Your task to perform on an android device: Open sound settings Image 0: 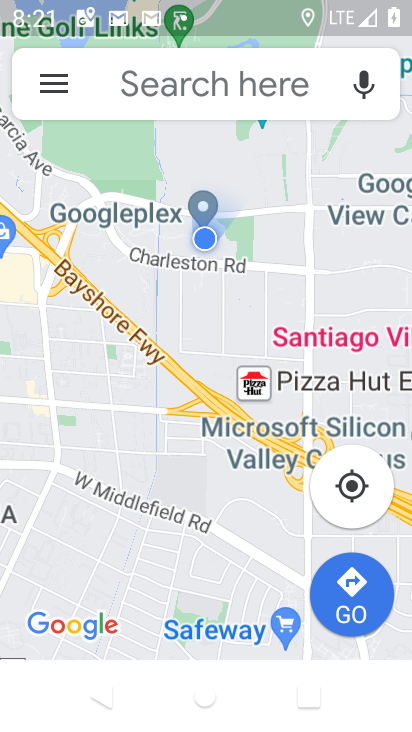
Step 0: press home button
Your task to perform on an android device: Open sound settings Image 1: 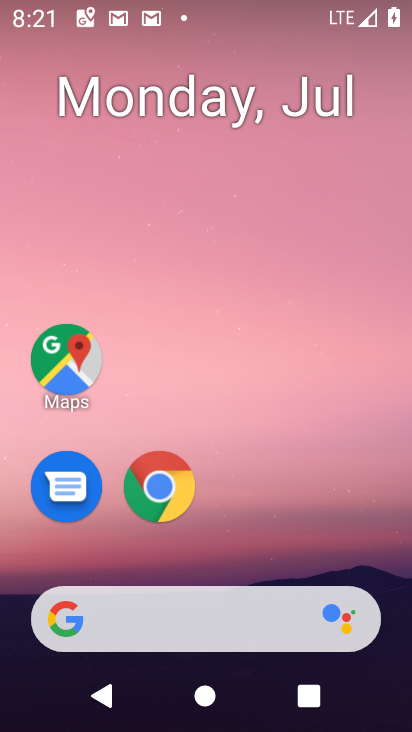
Step 1: drag from (381, 526) to (392, 121)
Your task to perform on an android device: Open sound settings Image 2: 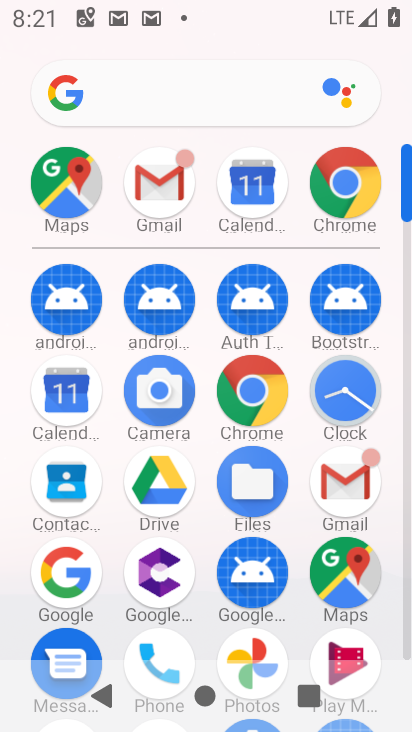
Step 2: drag from (382, 529) to (395, 208)
Your task to perform on an android device: Open sound settings Image 3: 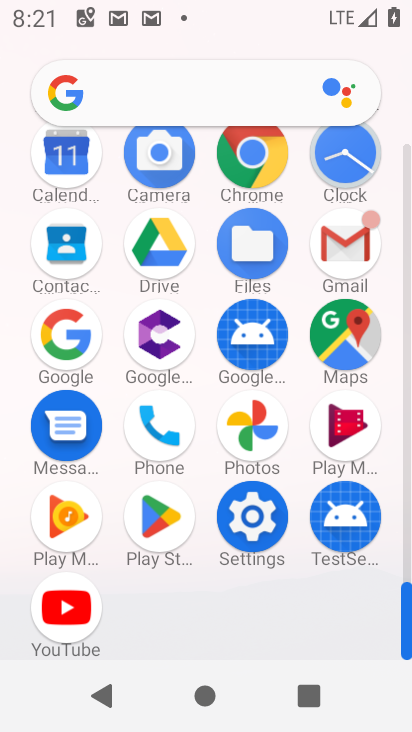
Step 3: click (255, 508)
Your task to perform on an android device: Open sound settings Image 4: 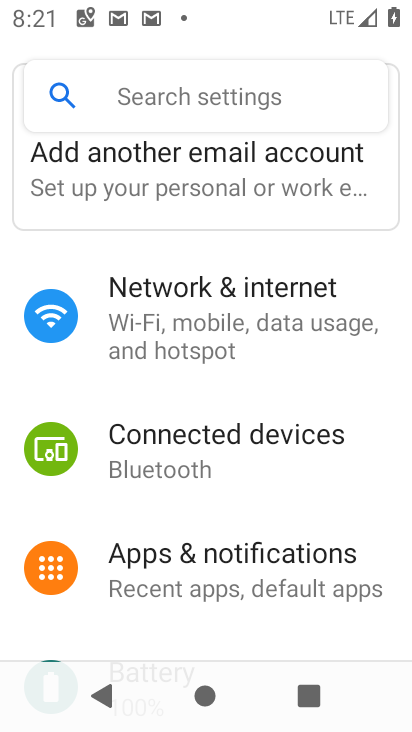
Step 4: drag from (359, 499) to (359, 377)
Your task to perform on an android device: Open sound settings Image 5: 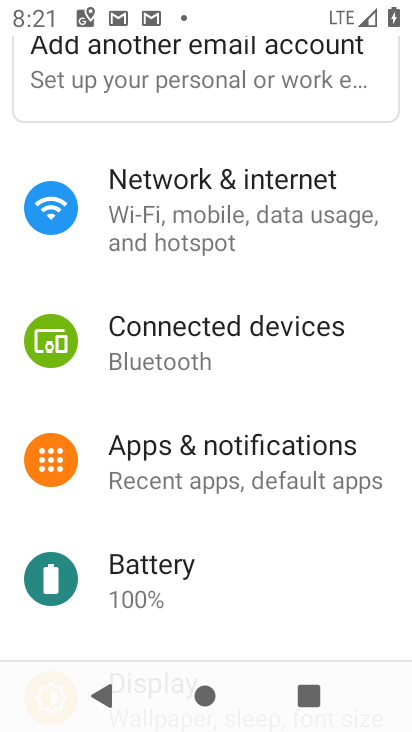
Step 5: drag from (370, 527) to (371, 401)
Your task to perform on an android device: Open sound settings Image 6: 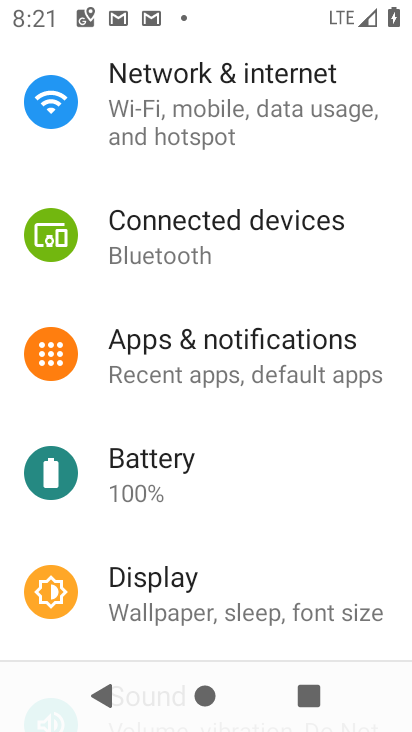
Step 6: drag from (368, 485) to (364, 361)
Your task to perform on an android device: Open sound settings Image 7: 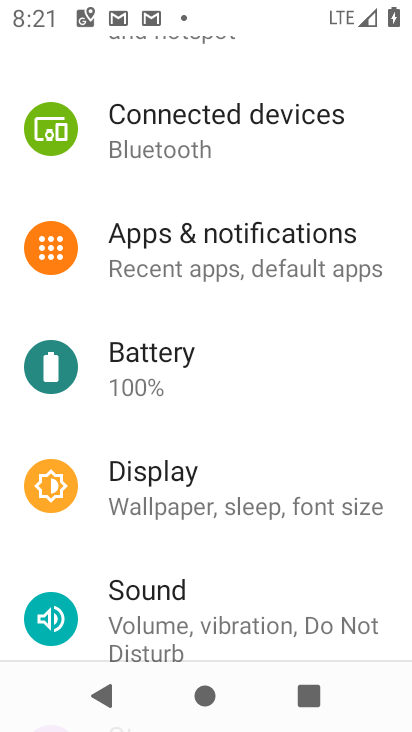
Step 7: drag from (380, 552) to (375, 435)
Your task to perform on an android device: Open sound settings Image 8: 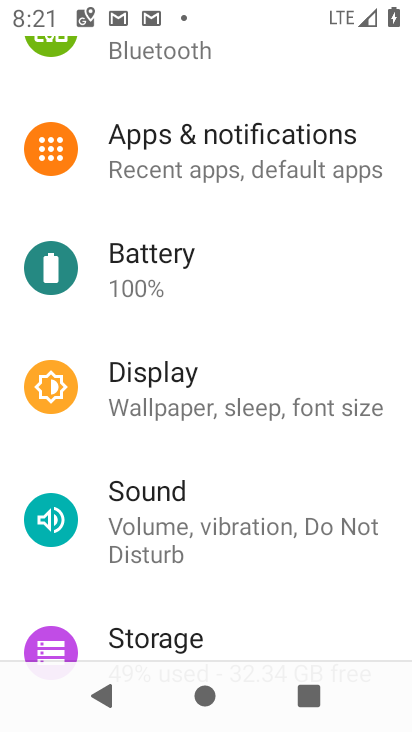
Step 8: drag from (366, 590) to (361, 478)
Your task to perform on an android device: Open sound settings Image 9: 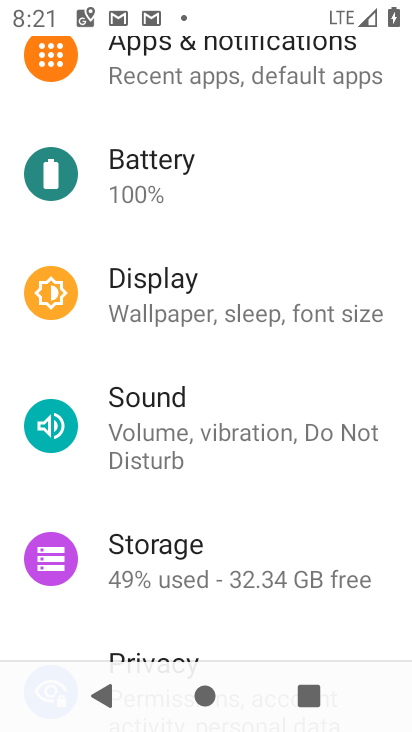
Step 9: click (275, 434)
Your task to perform on an android device: Open sound settings Image 10: 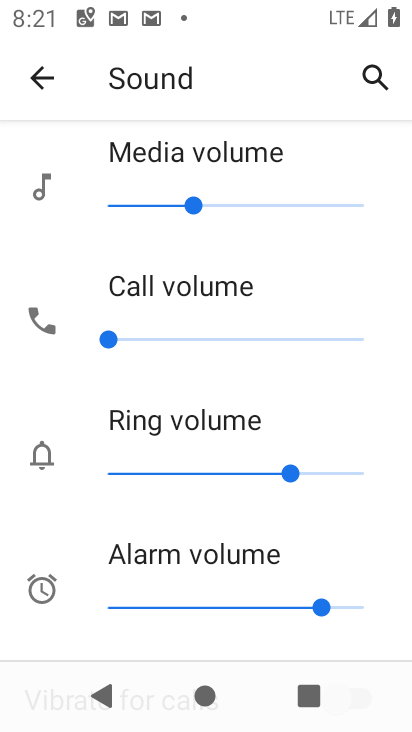
Step 10: task complete